Your task to perform on an android device: Go to Yahoo.com Image 0: 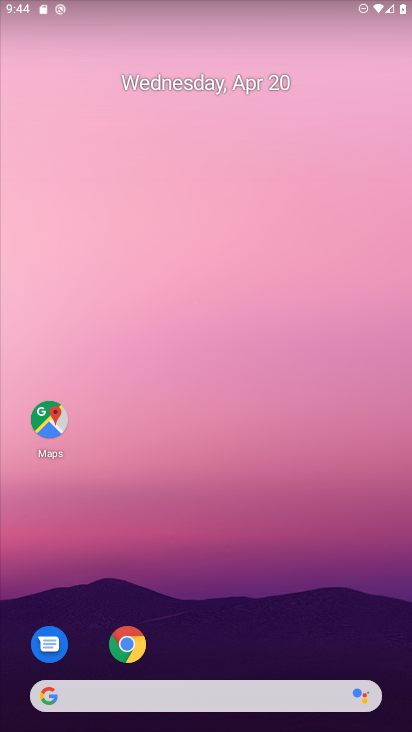
Step 0: drag from (352, 612) to (236, 68)
Your task to perform on an android device: Go to Yahoo.com Image 1: 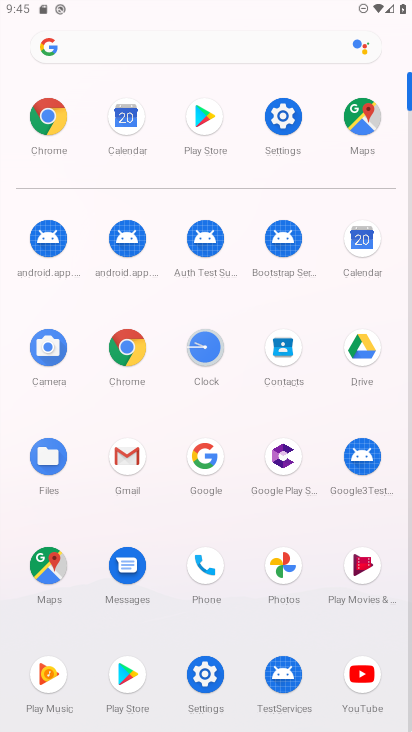
Step 1: click (134, 339)
Your task to perform on an android device: Go to Yahoo.com Image 2: 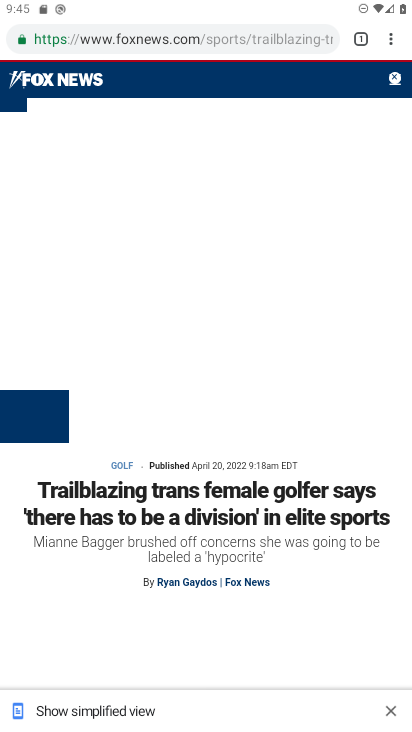
Step 2: press back button
Your task to perform on an android device: Go to Yahoo.com Image 3: 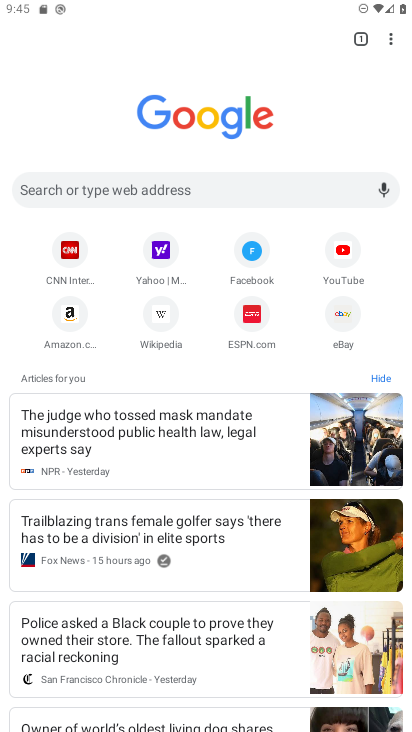
Step 3: click (166, 250)
Your task to perform on an android device: Go to Yahoo.com Image 4: 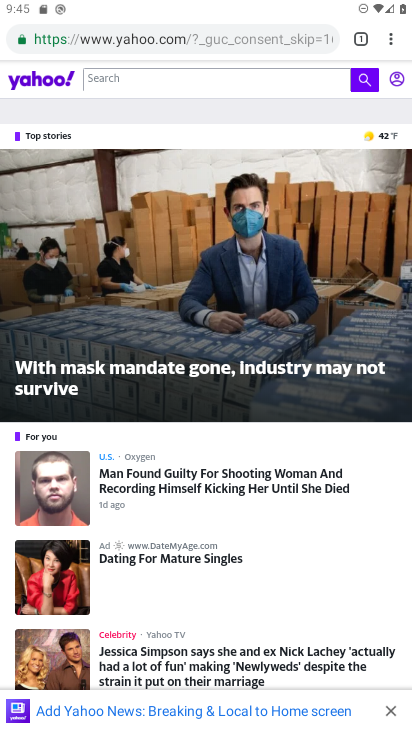
Step 4: task complete